Your task to perform on an android device: Go to network settings Image 0: 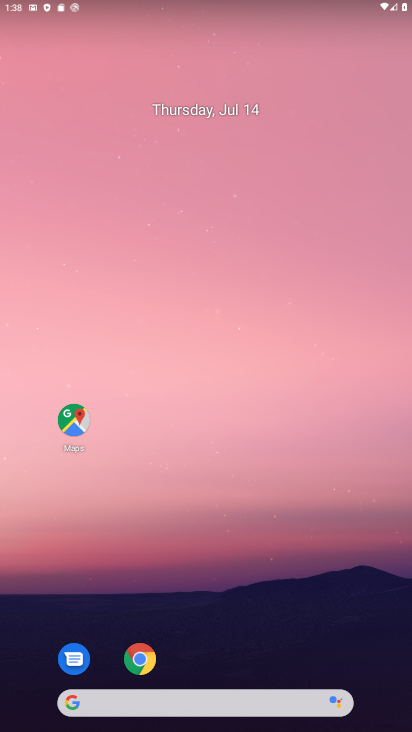
Step 0: drag from (305, 652) to (267, 5)
Your task to perform on an android device: Go to network settings Image 1: 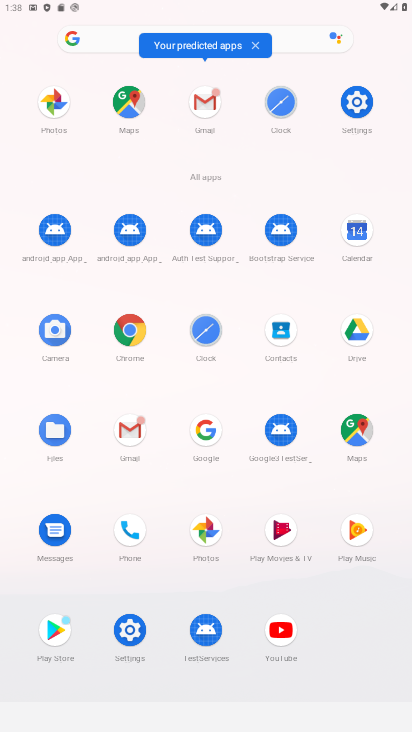
Step 1: click (354, 114)
Your task to perform on an android device: Go to network settings Image 2: 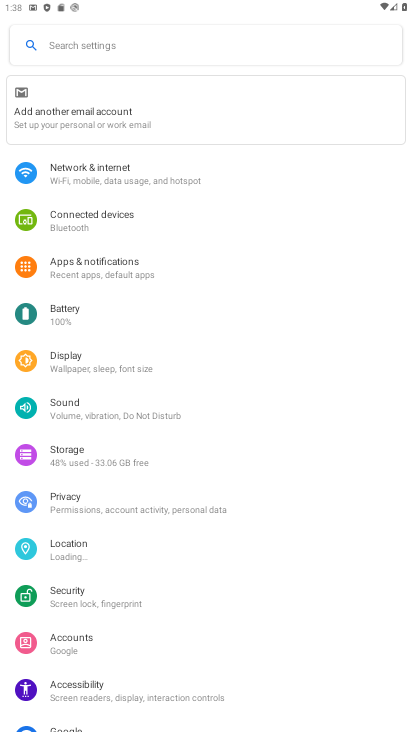
Step 2: click (234, 175)
Your task to perform on an android device: Go to network settings Image 3: 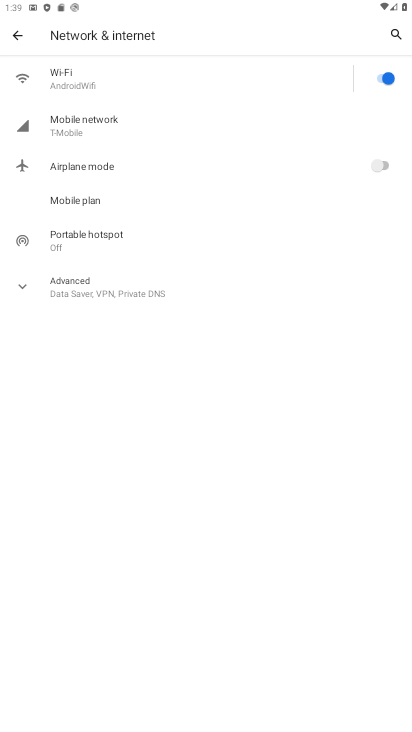
Step 3: task complete